Your task to perform on an android device: remove spam from my inbox in the gmail app Image 0: 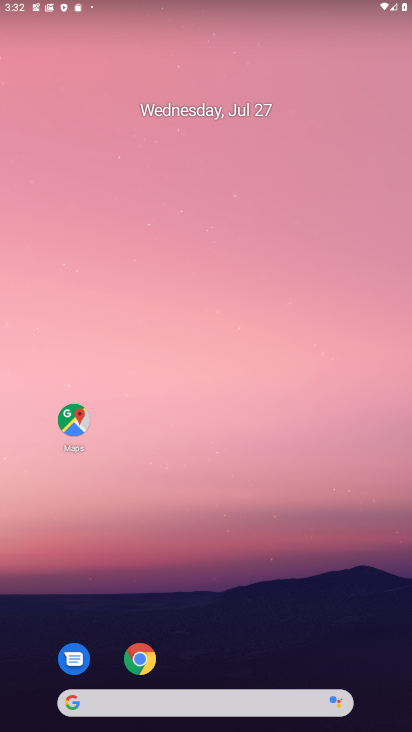
Step 0: drag from (167, 671) to (161, 251)
Your task to perform on an android device: remove spam from my inbox in the gmail app Image 1: 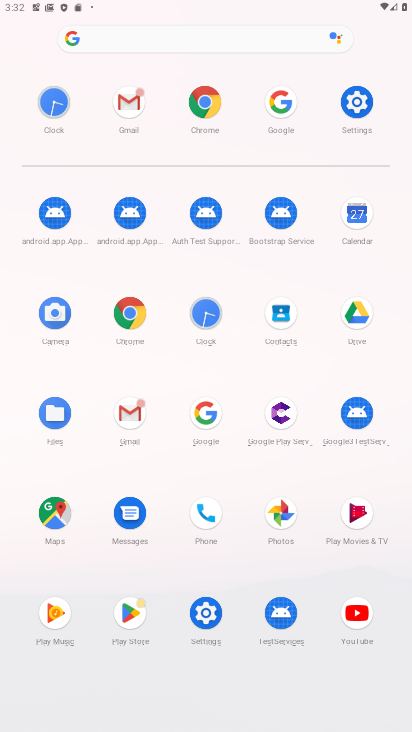
Step 1: click (127, 101)
Your task to perform on an android device: remove spam from my inbox in the gmail app Image 2: 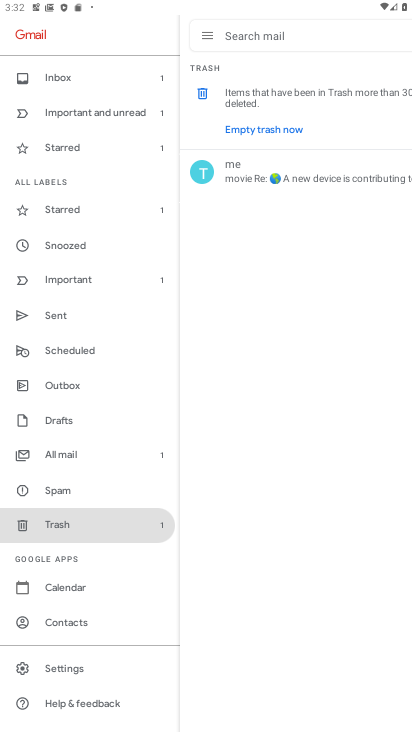
Step 2: click (49, 493)
Your task to perform on an android device: remove spam from my inbox in the gmail app Image 3: 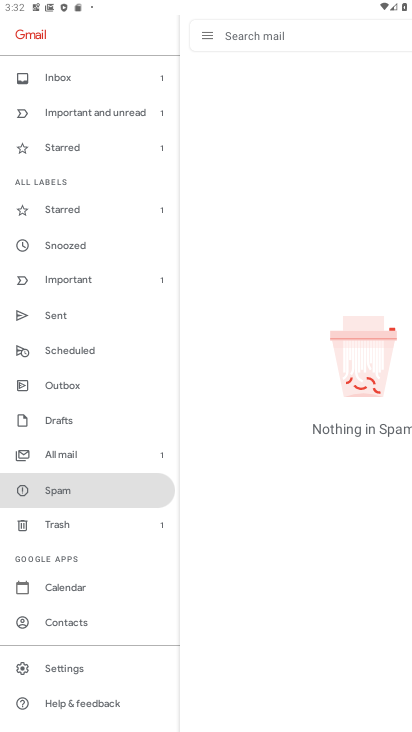
Step 3: task complete